Your task to perform on an android device: Open Wikipedia Image 0: 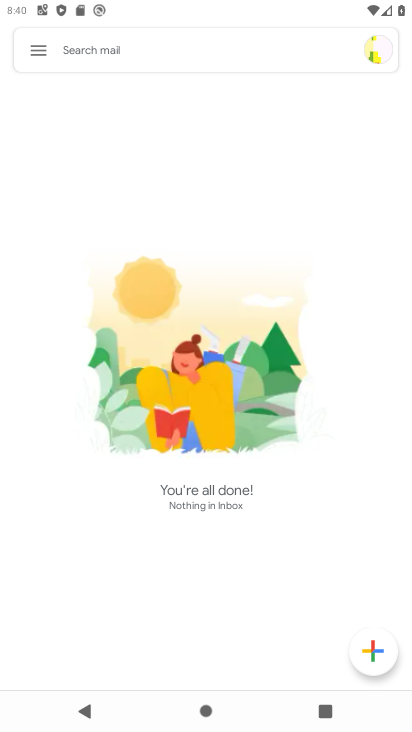
Step 0: press back button
Your task to perform on an android device: Open Wikipedia Image 1: 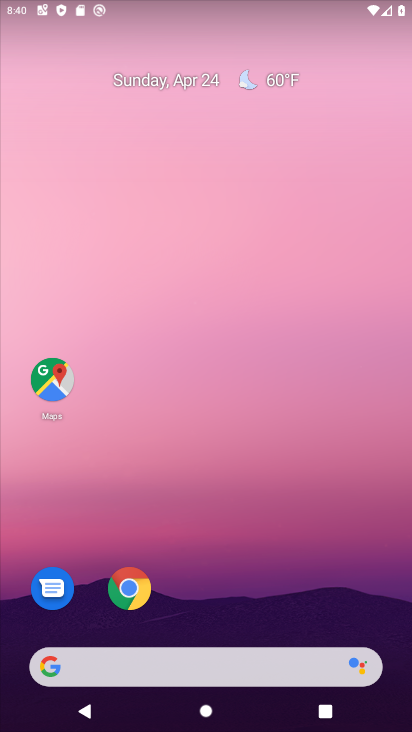
Step 1: click (128, 586)
Your task to perform on an android device: Open Wikipedia Image 2: 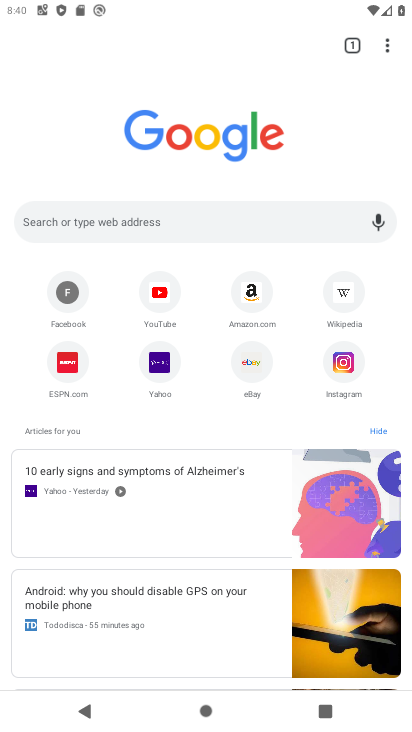
Step 2: click (346, 293)
Your task to perform on an android device: Open Wikipedia Image 3: 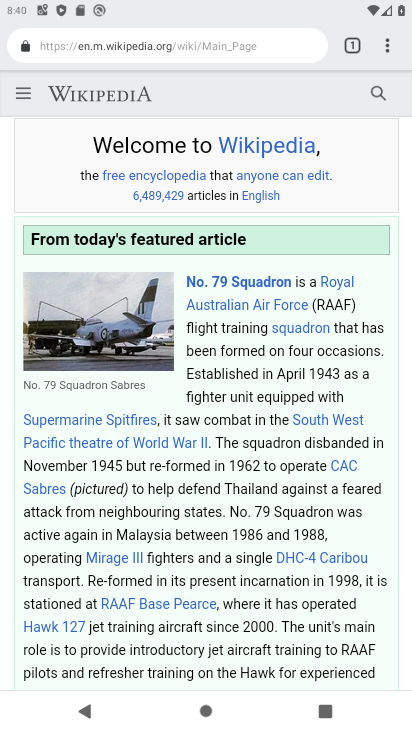
Step 3: task complete